Your task to perform on an android device: Open CNN.com Image 0: 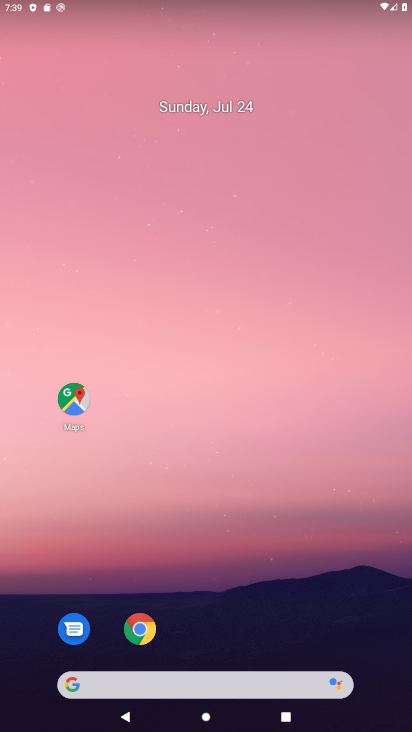
Step 0: drag from (276, 676) to (268, 5)
Your task to perform on an android device: Open CNN.com Image 1: 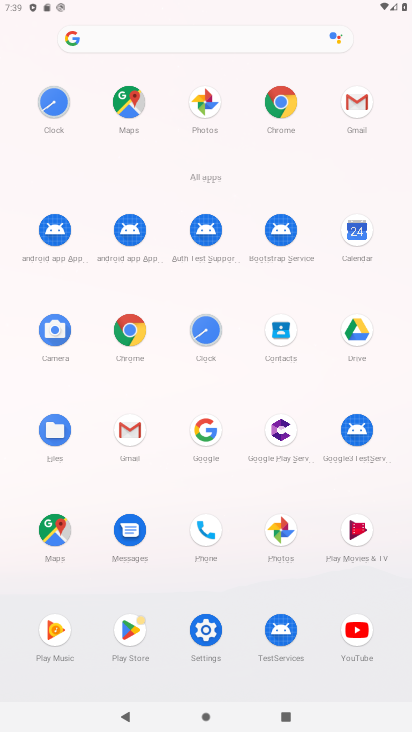
Step 1: click (286, 111)
Your task to perform on an android device: Open CNN.com Image 2: 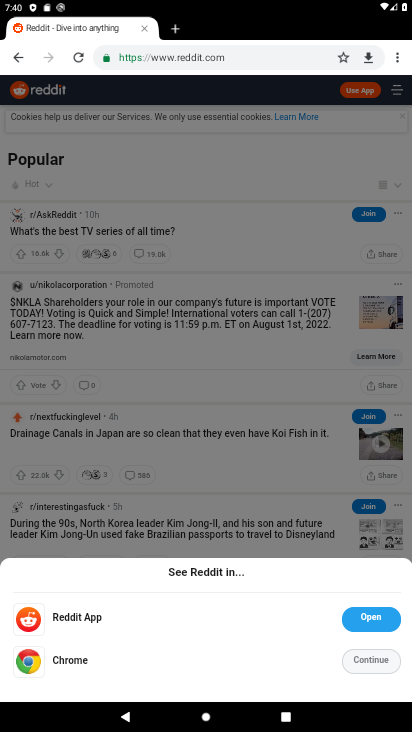
Step 2: click (256, 57)
Your task to perform on an android device: Open CNN.com Image 3: 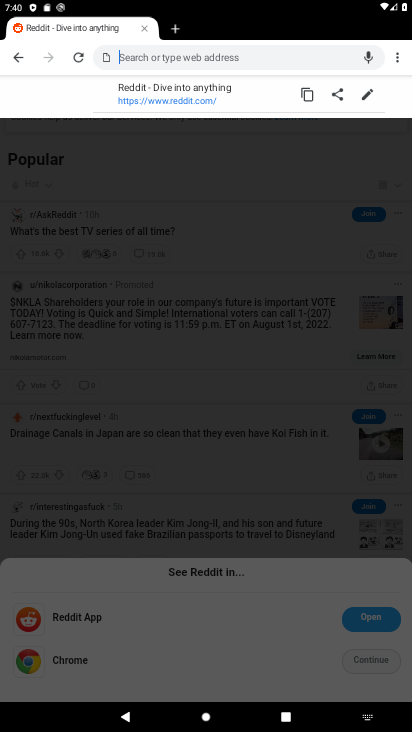
Step 3: type "cnn"
Your task to perform on an android device: Open CNN.com Image 4: 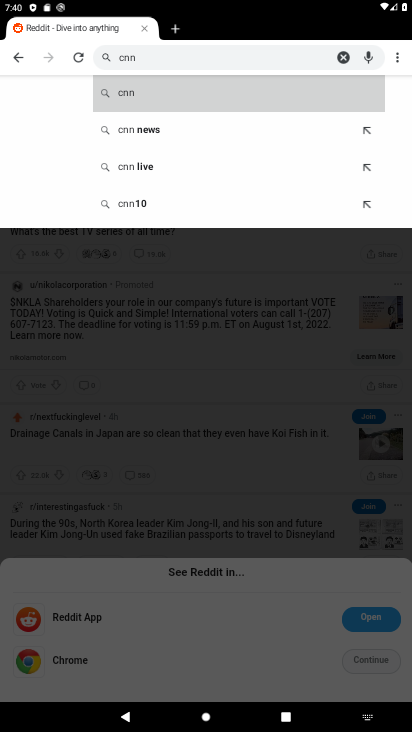
Step 4: type ".com"
Your task to perform on an android device: Open CNN.com Image 5: 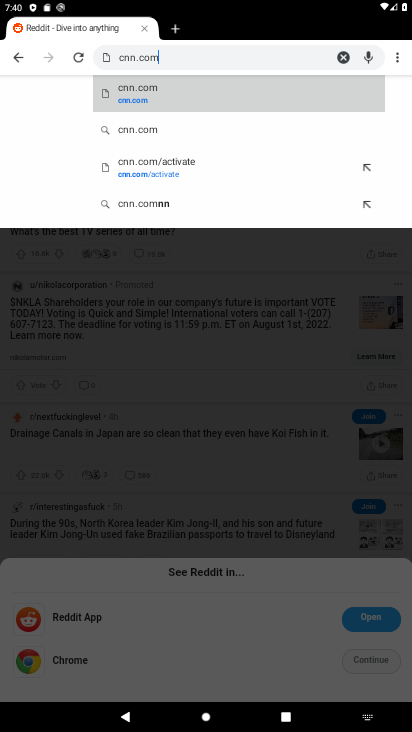
Step 5: click (253, 95)
Your task to perform on an android device: Open CNN.com Image 6: 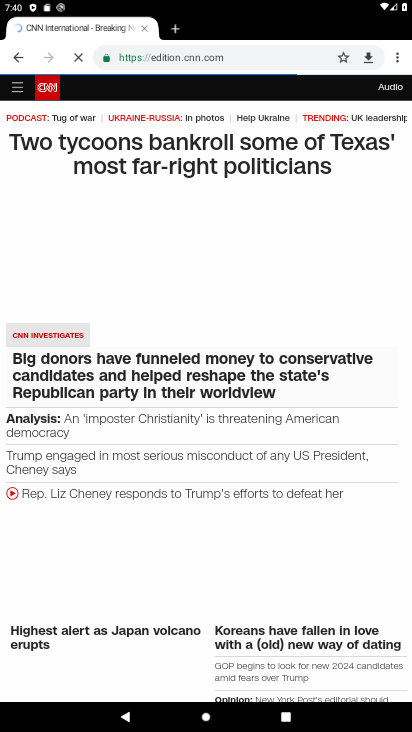
Step 6: click (266, 110)
Your task to perform on an android device: Open CNN.com Image 7: 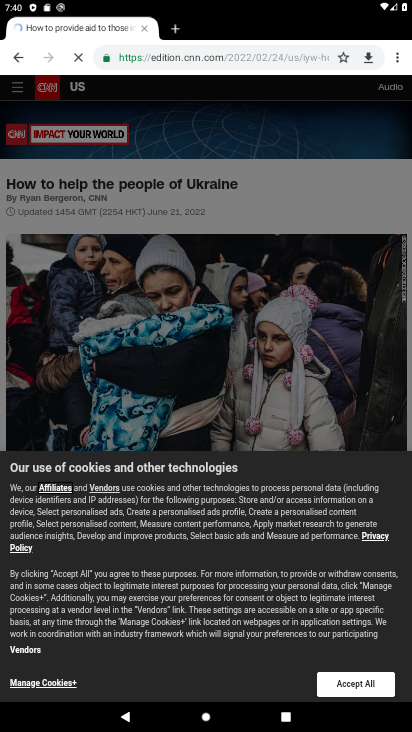
Step 7: task complete